Your task to perform on an android device: Open the map Image 0: 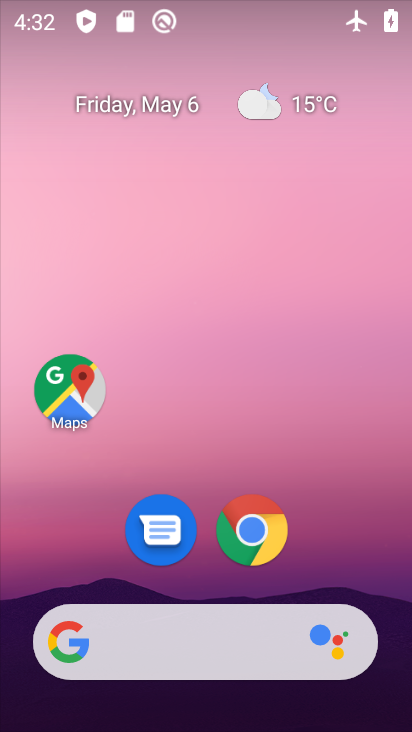
Step 0: drag from (372, 527) to (308, 71)
Your task to perform on an android device: Open the map Image 1: 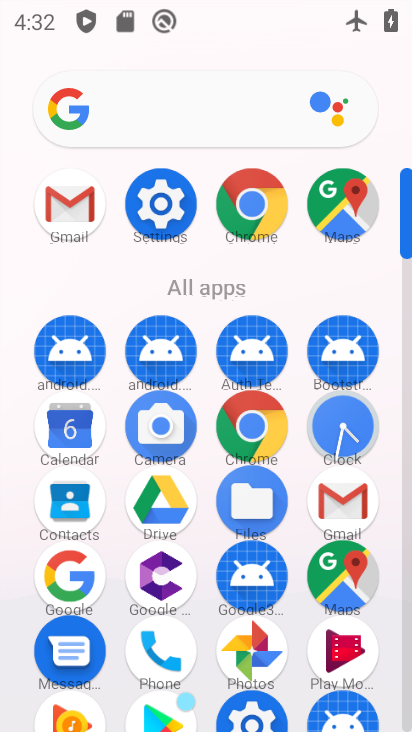
Step 1: click (327, 171)
Your task to perform on an android device: Open the map Image 2: 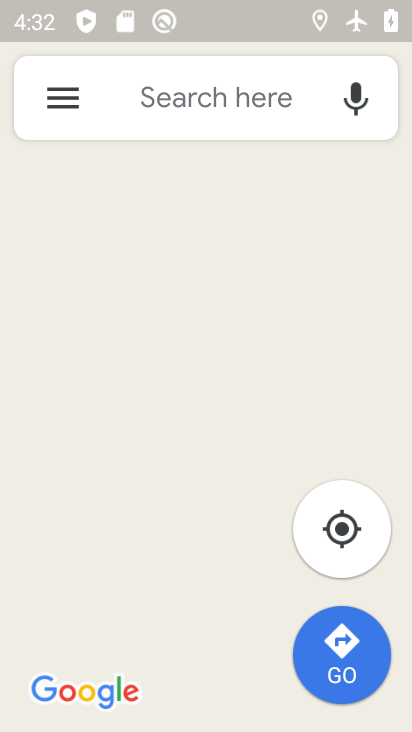
Step 2: task complete